Your task to perform on an android device: Show me recent news Image 0: 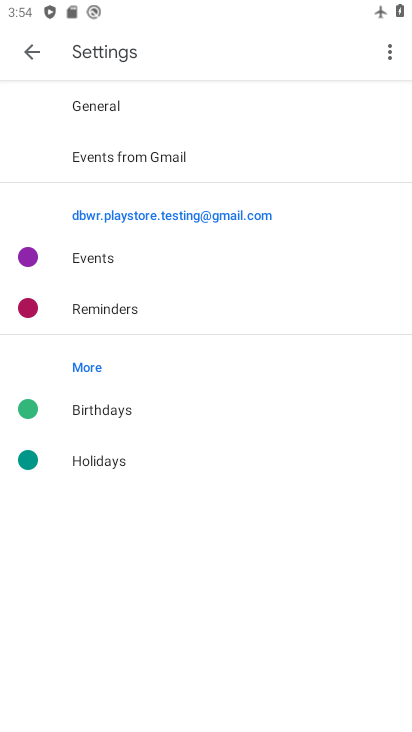
Step 0: press home button
Your task to perform on an android device: Show me recent news Image 1: 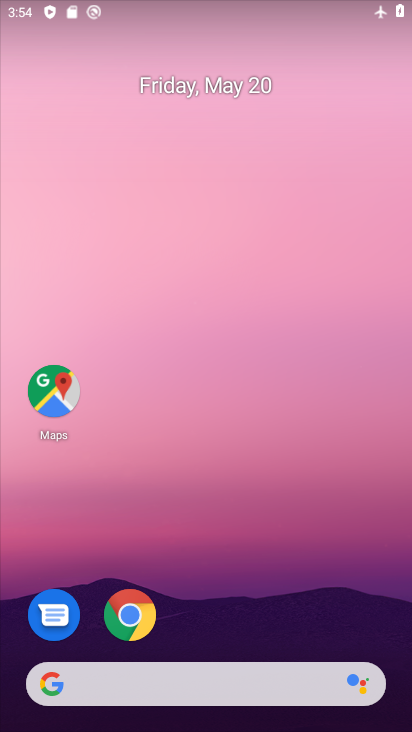
Step 1: drag from (249, 651) to (259, 253)
Your task to perform on an android device: Show me recent news Image 2: 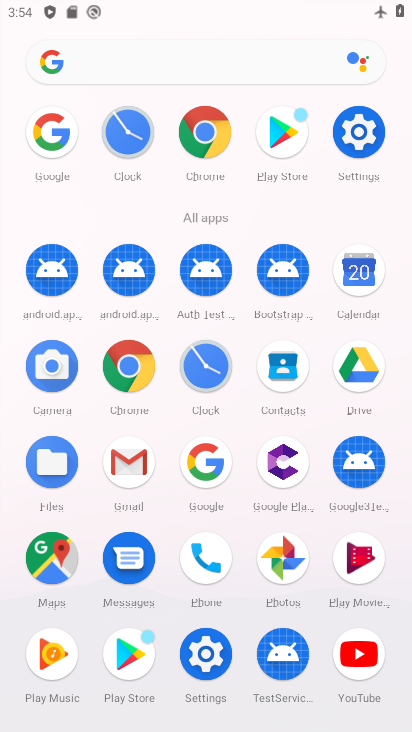
Step 2: click (212, 454)
Your task to perform on an android device: Show me recent news Image 3: 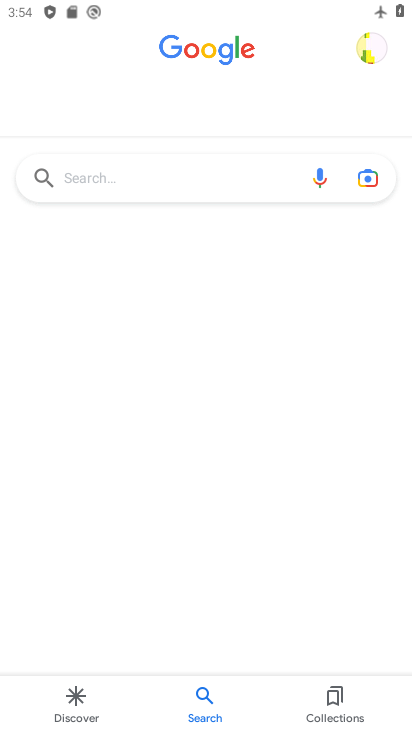
Step 3: click (74, 704)
Your task to perform on an android device: Show me recent news Image 4: 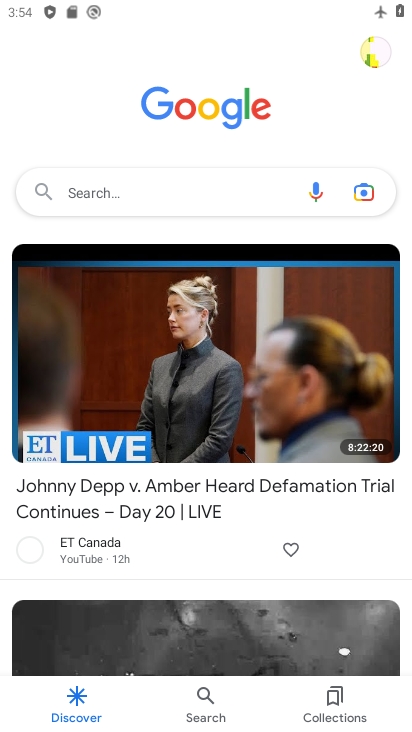
Step 4: click (175, 189)
Your task to perform on an android device: Show me recent news Image 5: 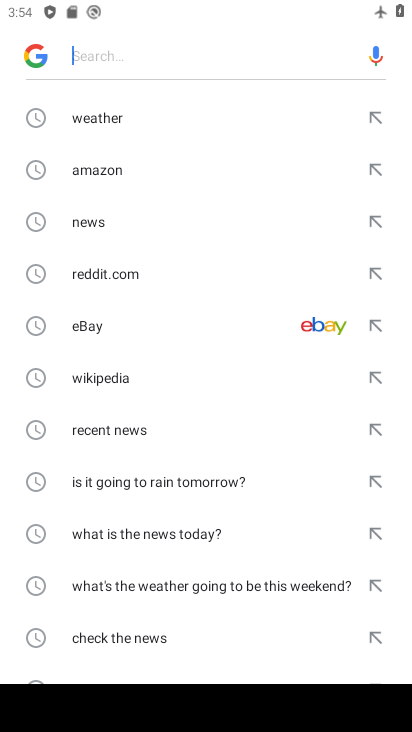
Step 5: click (142, 432)
Your task to perform on an android device: Show me recent news Image 6: 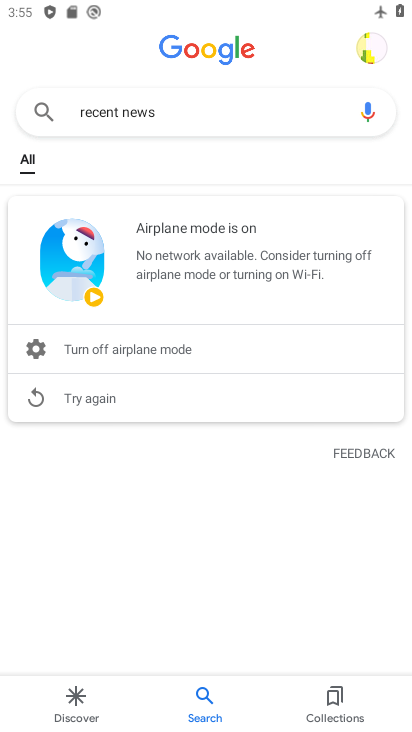
Step 6: task complete